Your task to perform on an android device: refresh tabs in the chrome app Image 0: 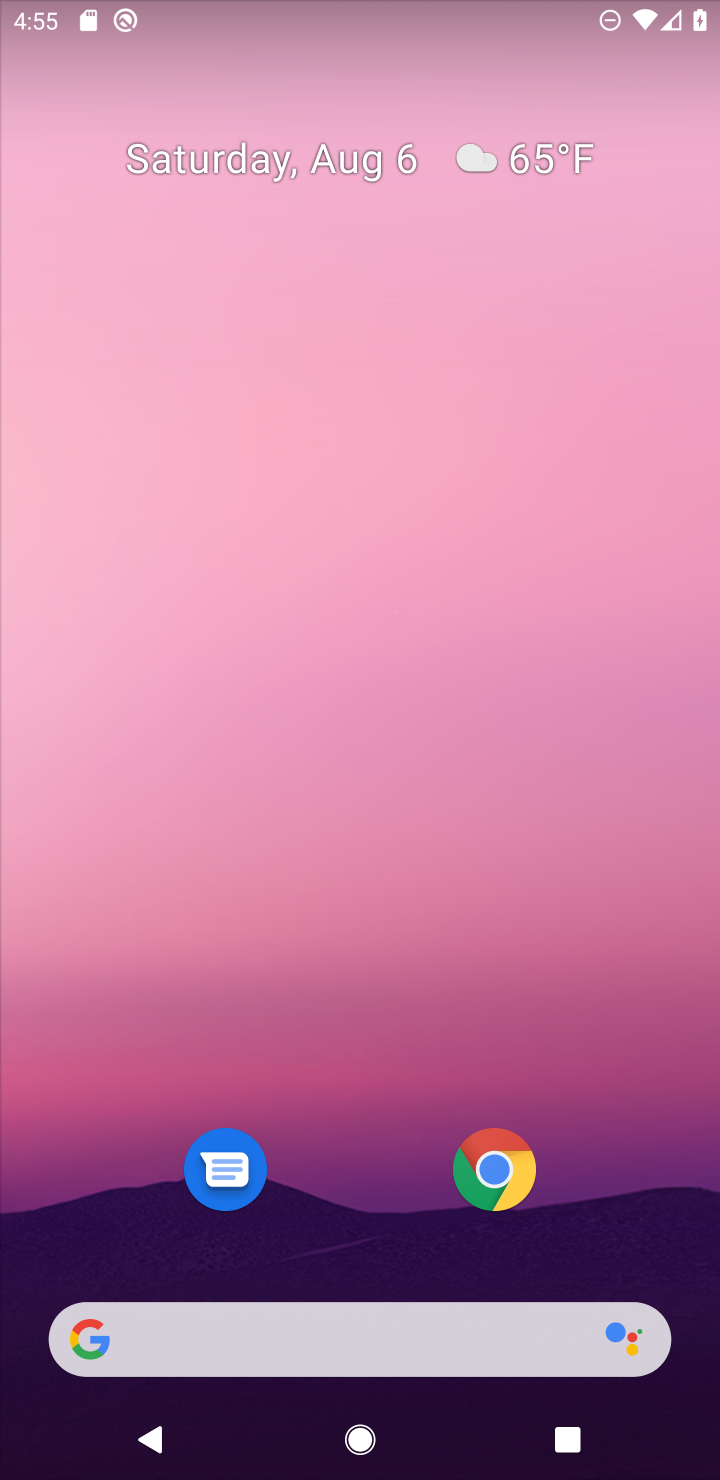
Step 0: click (507, 1185)
Your task to perform on an android device: refresh tabs in the chrome app Image 1: 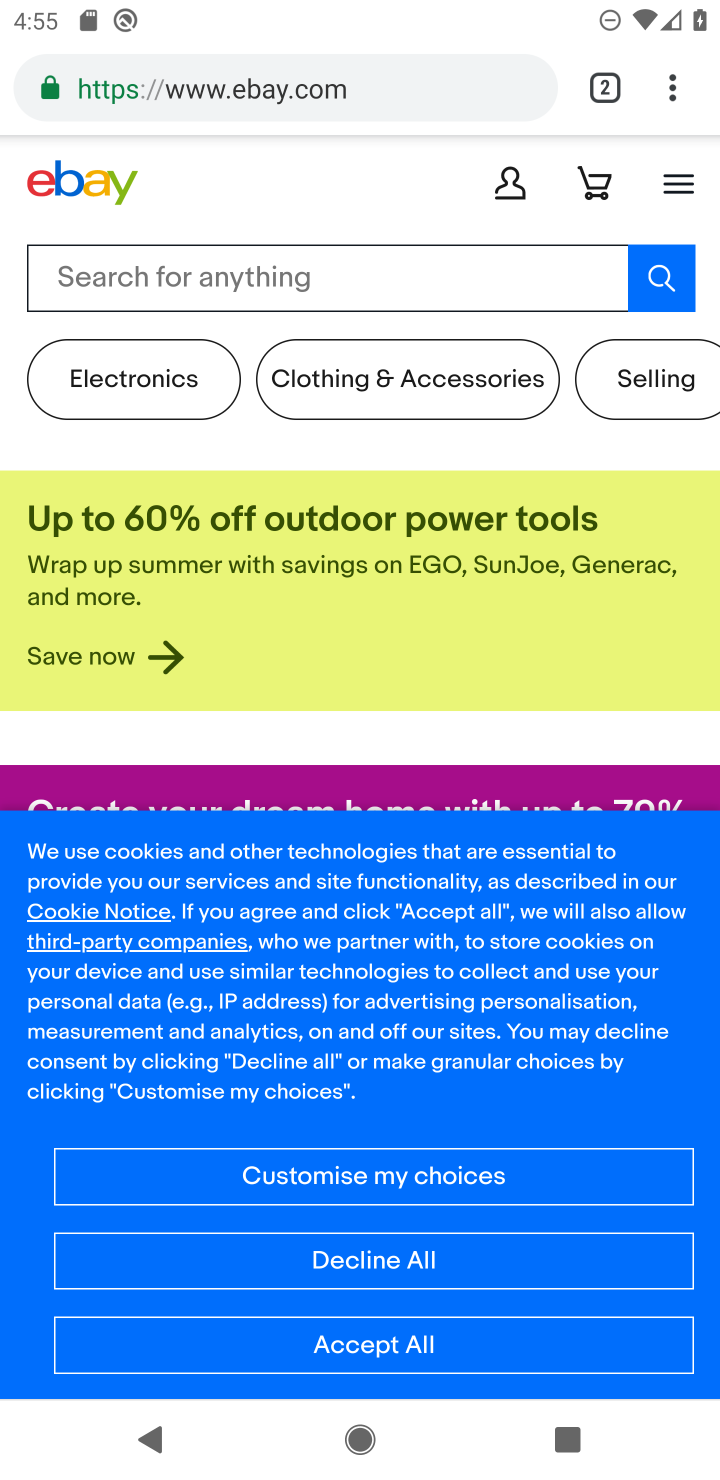
Step 1: click (678, 88)
Your task to perform on an android device: refresh tabs in the chrome app Image 2: 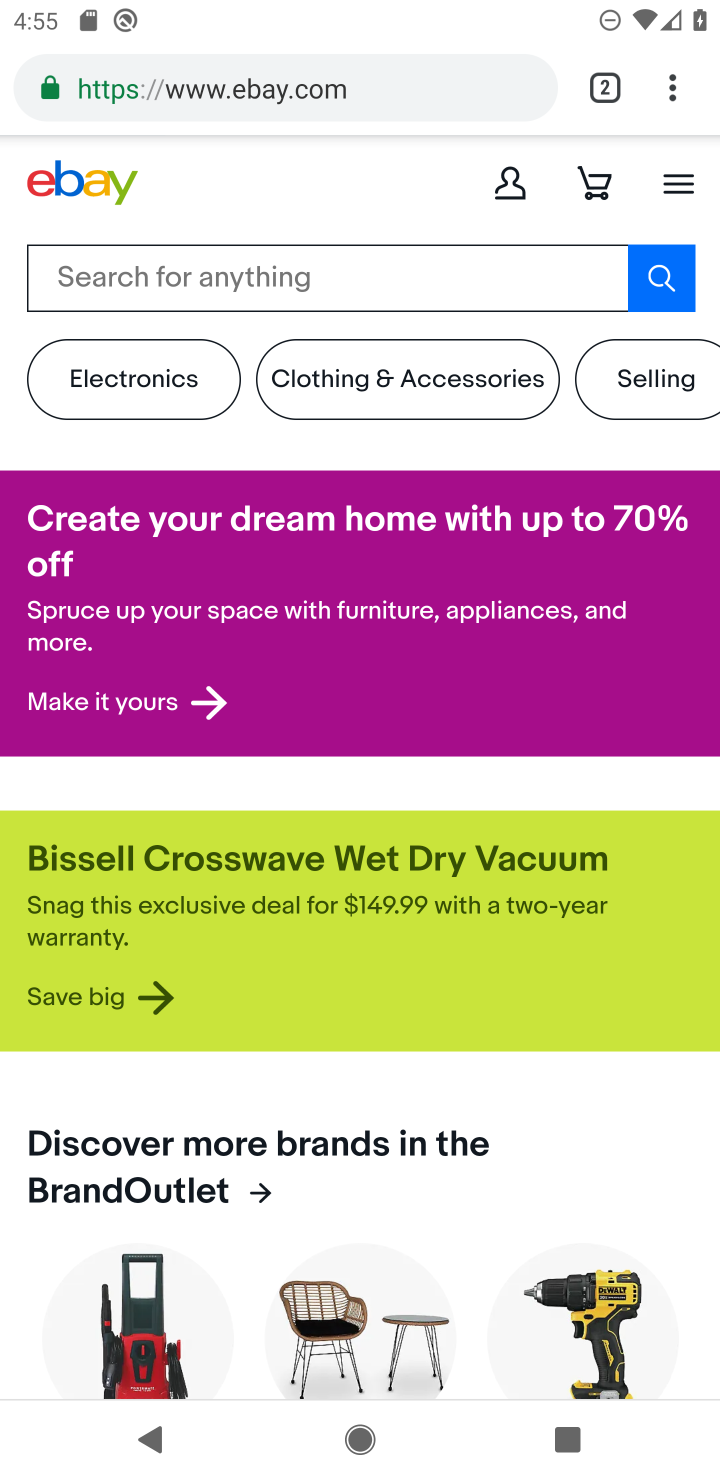
Step 2: click (712, 107)
Your task to perform on an android device: refresh tabs in the chrome app Image 3: 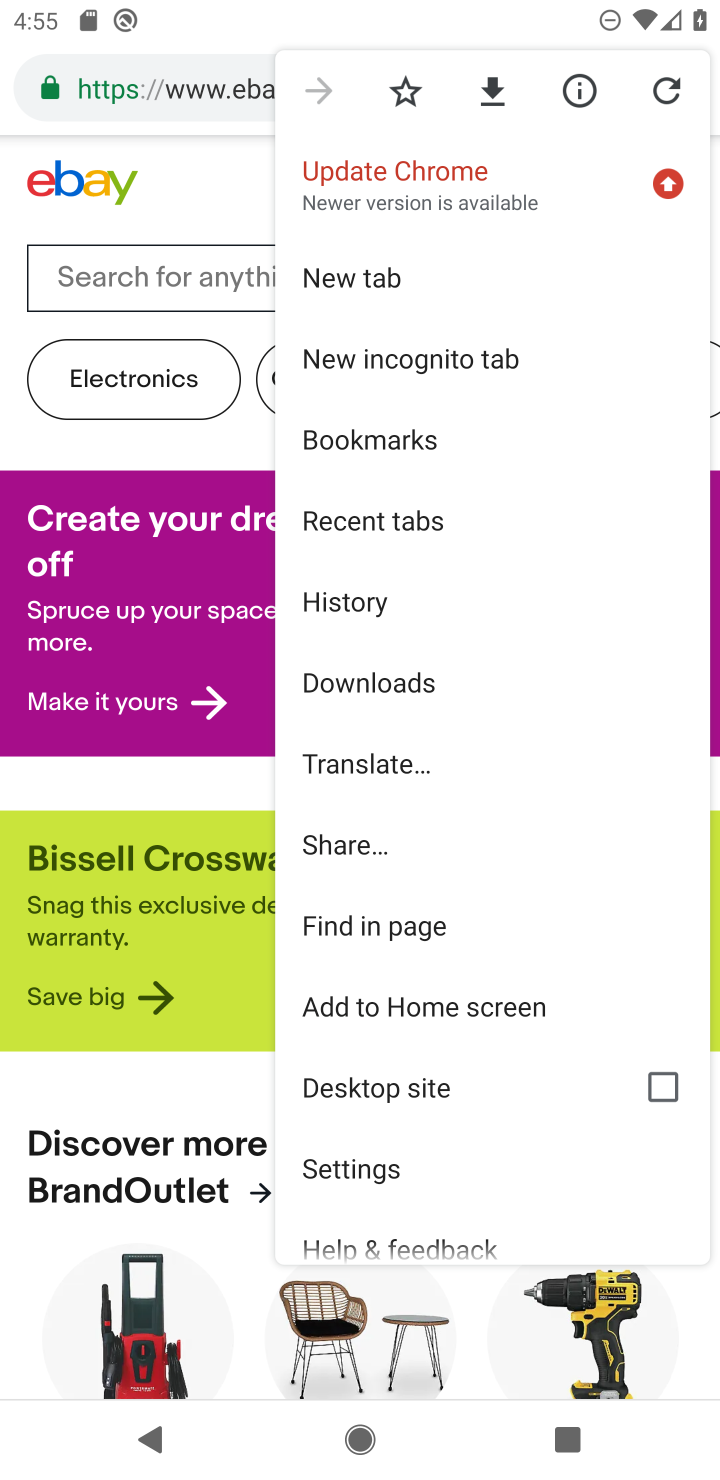
Step 3: click (666, 84)
Your task to perform on an android device: refresh tabs in the chrome app Image 4: 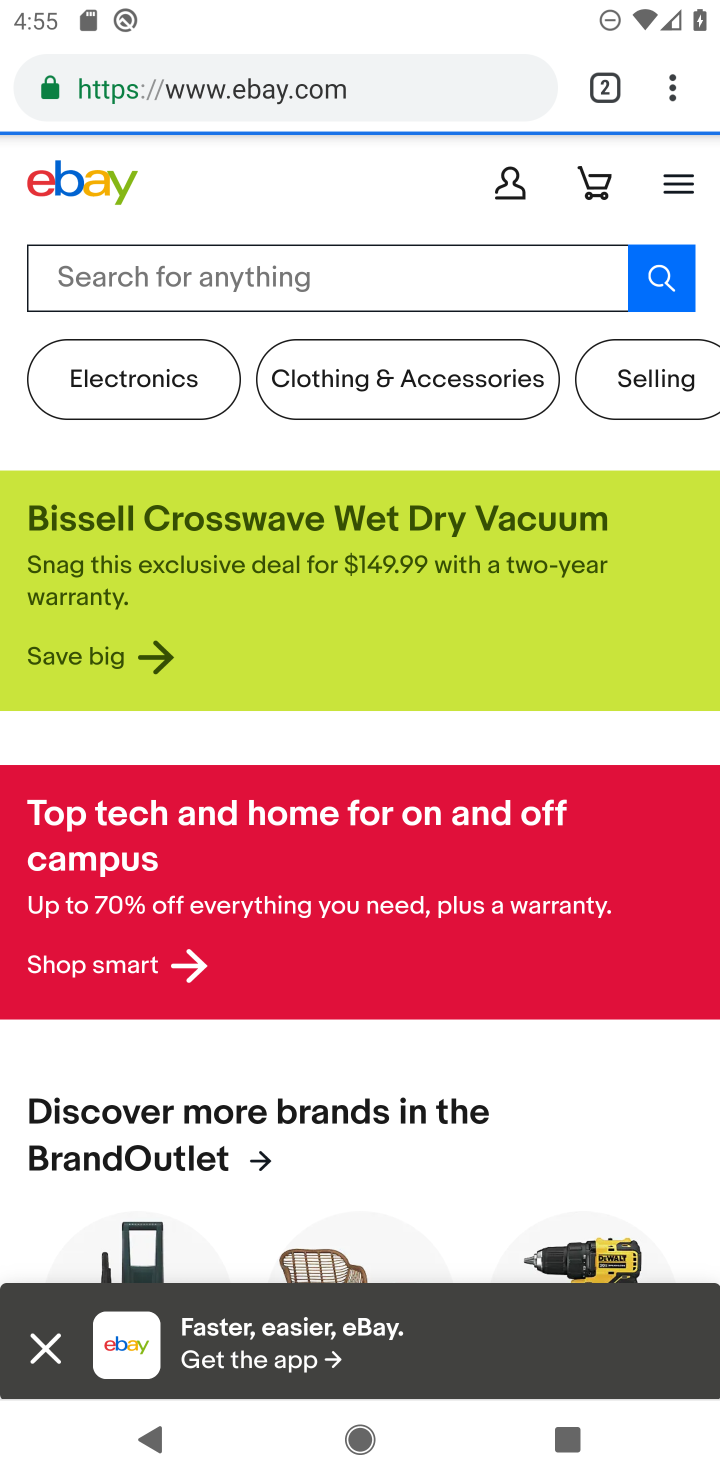
Step 4: task complete